Your task to perform on an android device: Open calendar and show me the first week of next month Image 0: 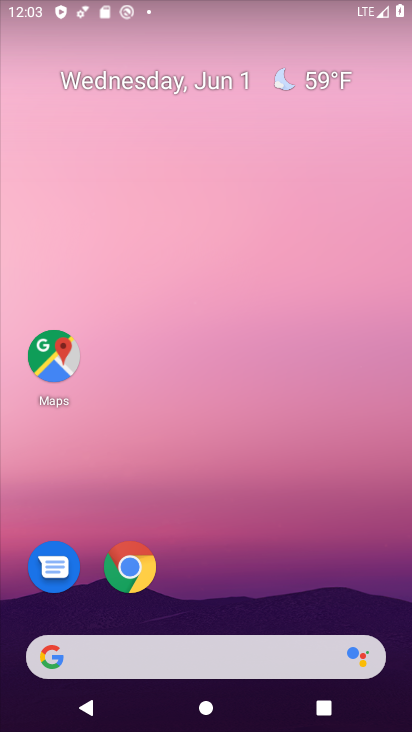
Step 0: drag from (244, 610) to (192, 112)
Your task to perform on an android device: Open calendar and show me the first week of next month Image 1: 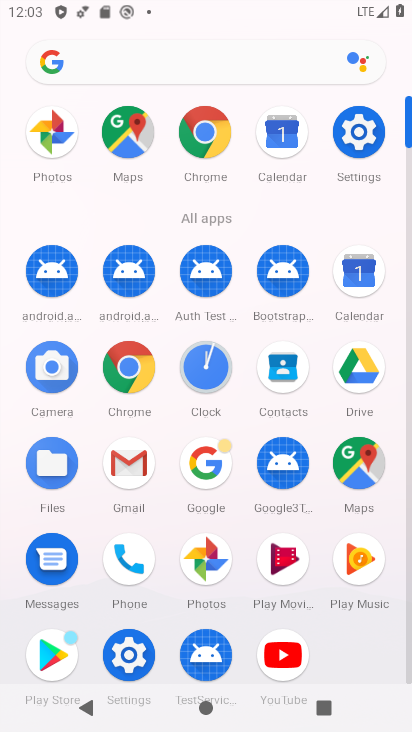
Step 1: click (357, 266)
Your task to perform on an android device: Open calendar and show me the first week of next month Image 2: 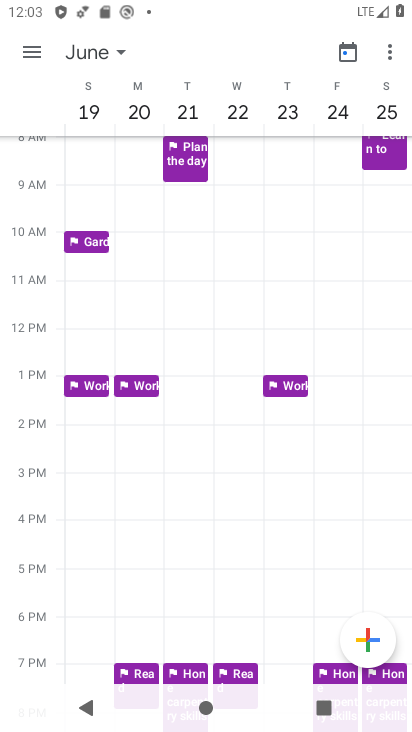
Step 2: click (119, 46)
Your task to perform on an android device: Open calendar and show me the first week of next month Image 3: 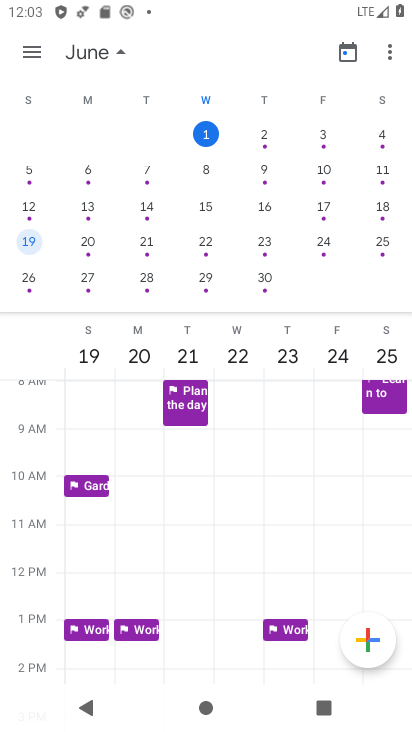
Step 3: click (216, 135)
Your task to perform on an android device: Open calendar and show me the first week of next month Image 4: 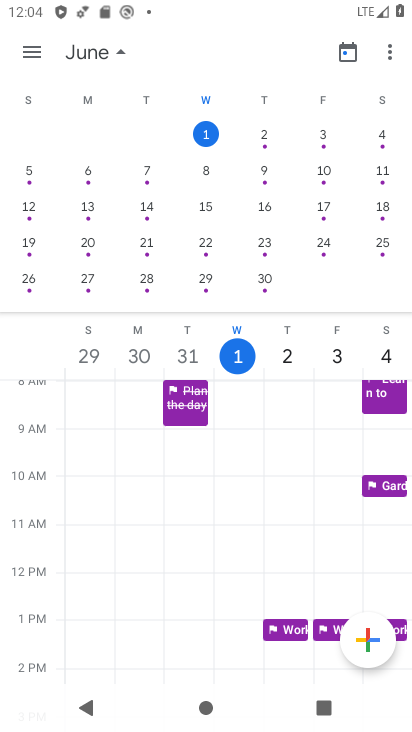
Step 4: task complete